Your task to perform on an android device: Check the weather Image 0: 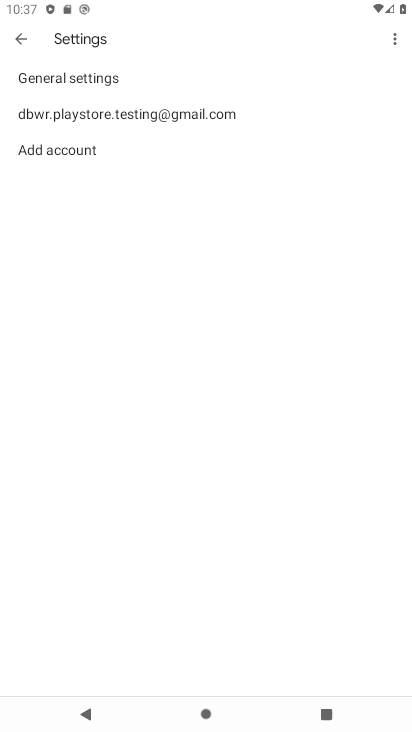
Step 0: press home button
Your task to perform on an android device: Check the weather Image 1: 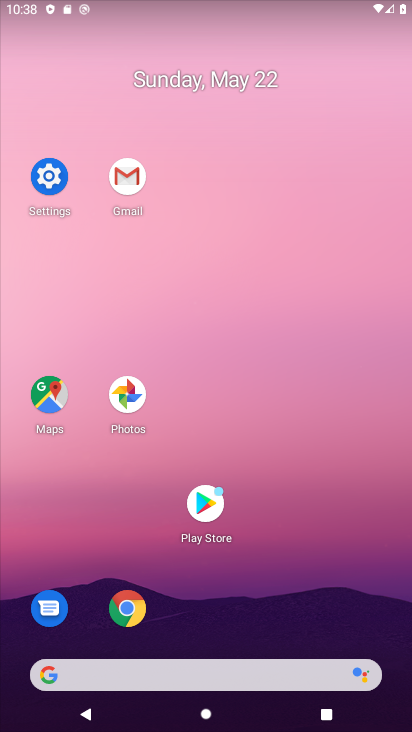
Step 1: drag from (230, 627) to (263, 179)
Your task to perform on an android device: Check the weather Image 2: 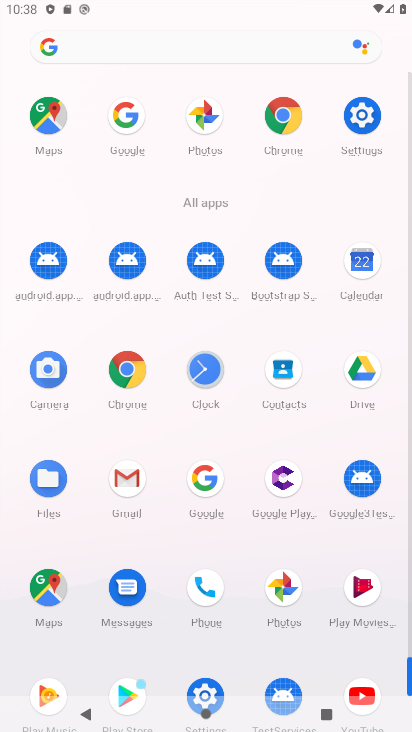
Step 2: drag from (215, 478) to (80, 264)
Your task to perform on an android device: Check the weather Image 3: 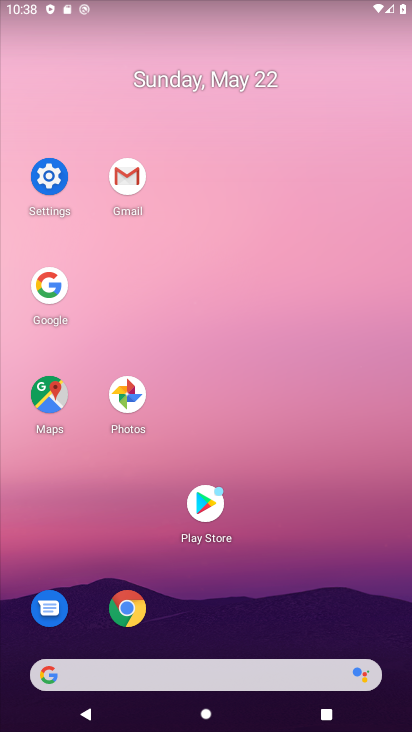
Step 3: click (58, 288)
Your task to perform on an android device: Check the weather Image 4: 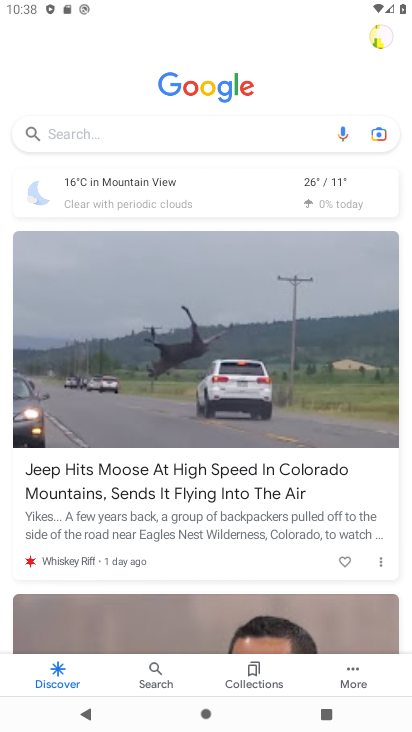
Step 4: click (117, 177)
Your task to perform on an android device: Check the weather Image 5: 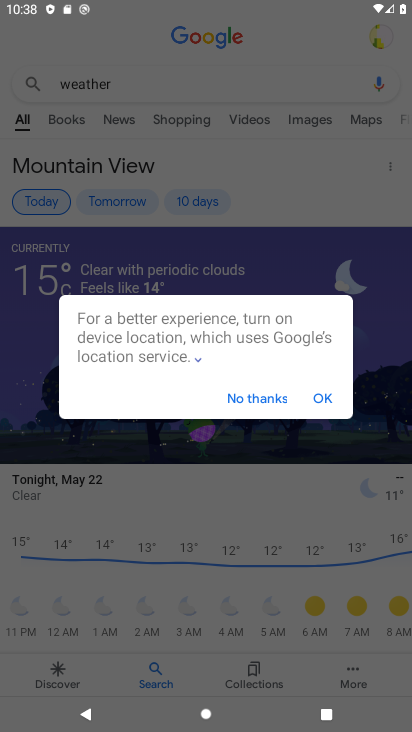
Step 5: task complete